Your task to perform on an android device: search for starred emails in the gmail app Image 0: 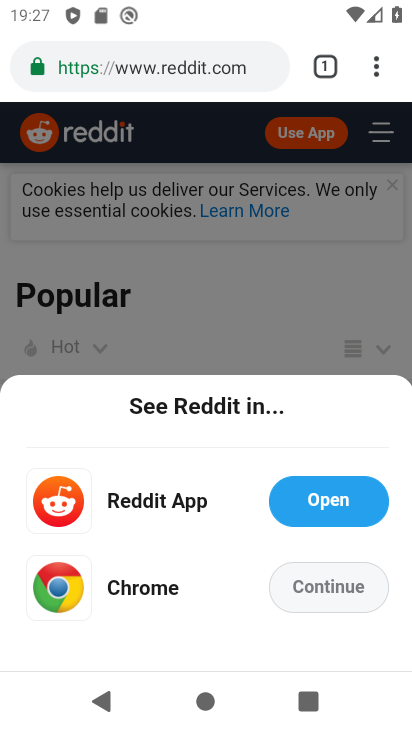
Step 0: press home button
Your task to perform on an android device: search for starred emails in the gmail app Image 1: 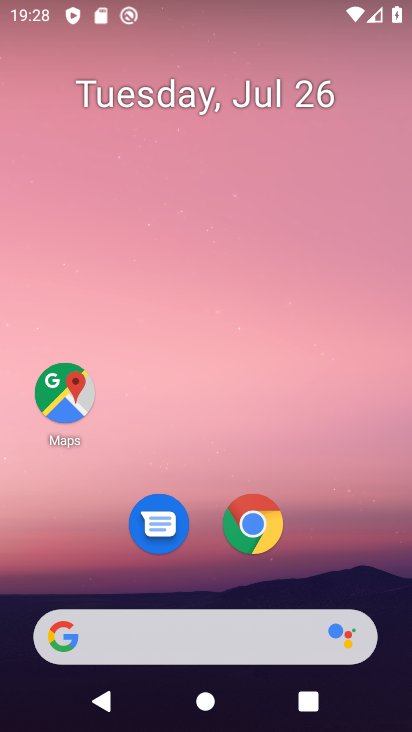
Step 1: drag from (178, 624) to (317, 273)
Your task to perform on an android device: search for starred emails in the gmail app Image 2: 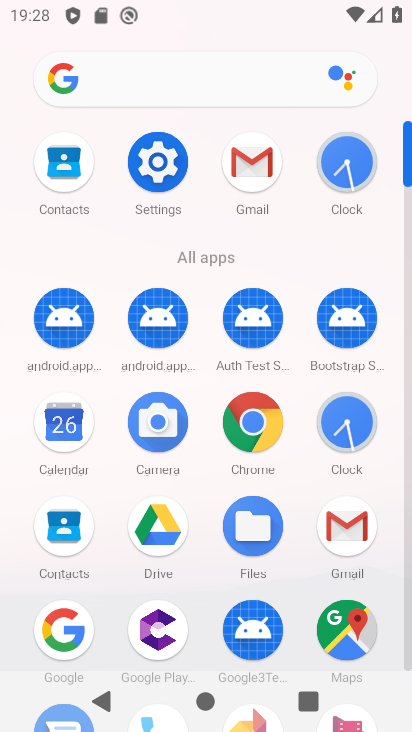
Step 2: click (258, 172)
Your task to perform on an android device: search for starred emails in the gmail app Image 3: 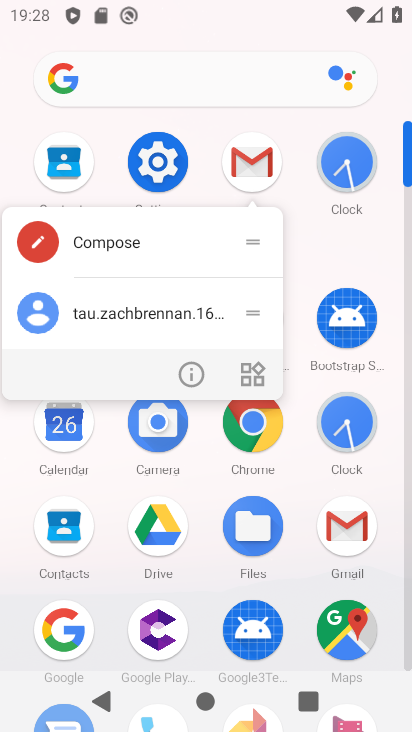
Step 3: click (247, 173)
Your task to perform on an android device: search for starred emails in the gmail app Image 4: 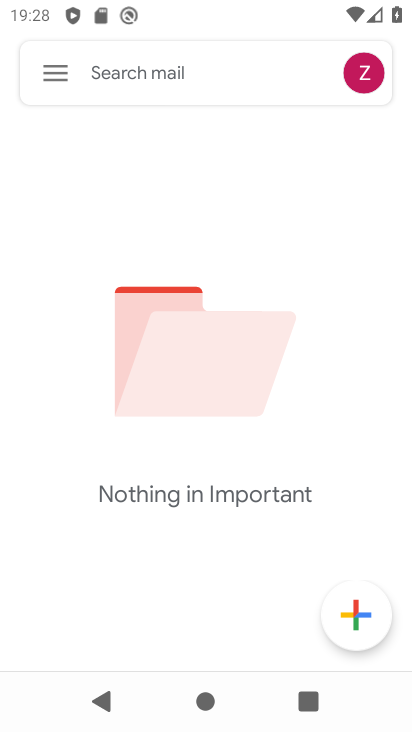
Step 4: click (59, 75)
Your task to perform on an android device: search for starred emails in the gmail app Image 5: 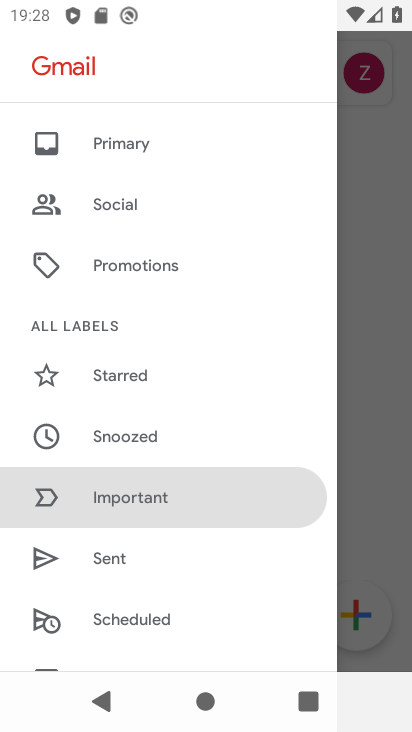
Step 5: click (139, 372)
Your task to perform on an android device: search for starred emails in the gmail app Image 6: 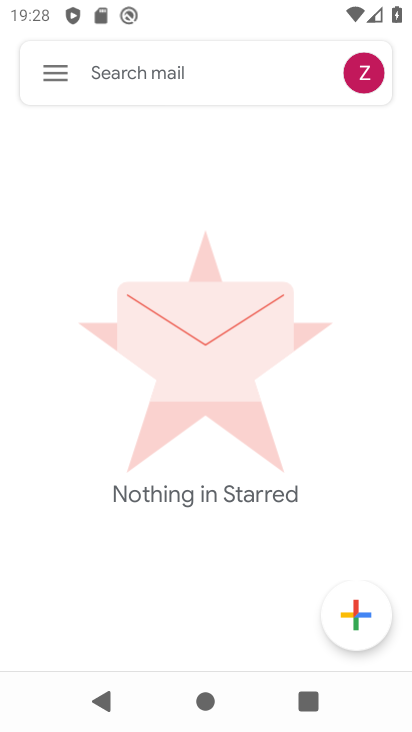
Step 6: task complete